Your task to perform on an android device: turn off airplane mode Image 0: 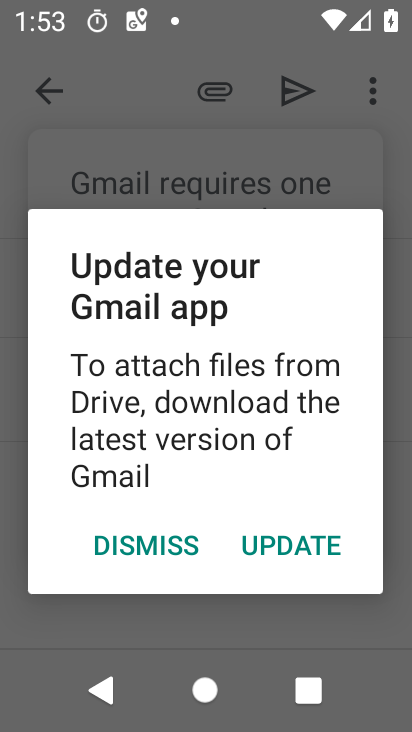
Step 0: click (274, 503)
Your task to perform on an android device: turn off airplane mode Image 1: 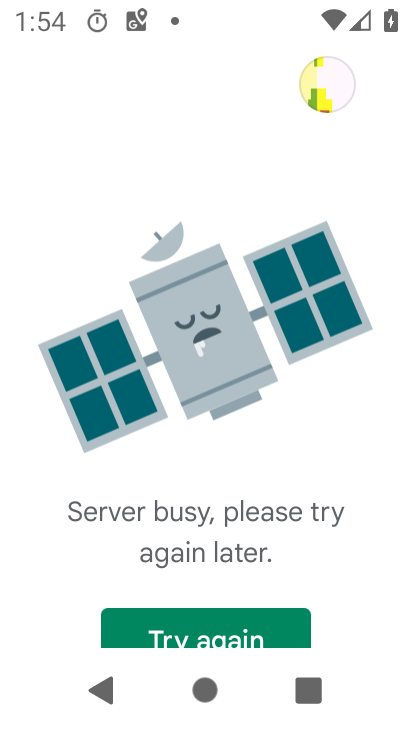
Step 1: press home button
Your task to perform on an android device: turn off airplane mode Image 2: 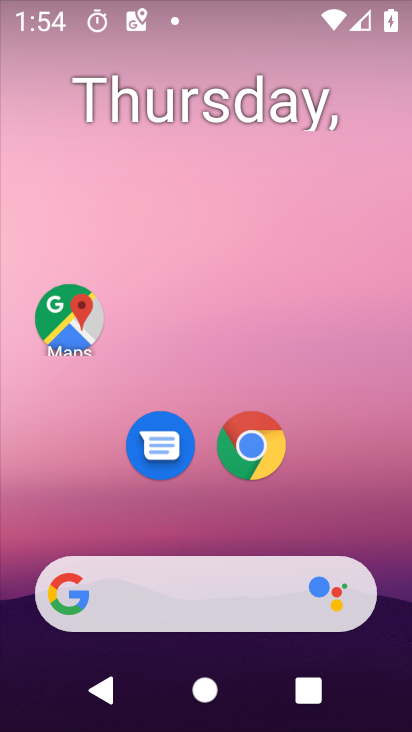
Step 2: drag from (194, 607) to (149, 30)
Your task to perform on an android device: turn off airplane mode Image 3: 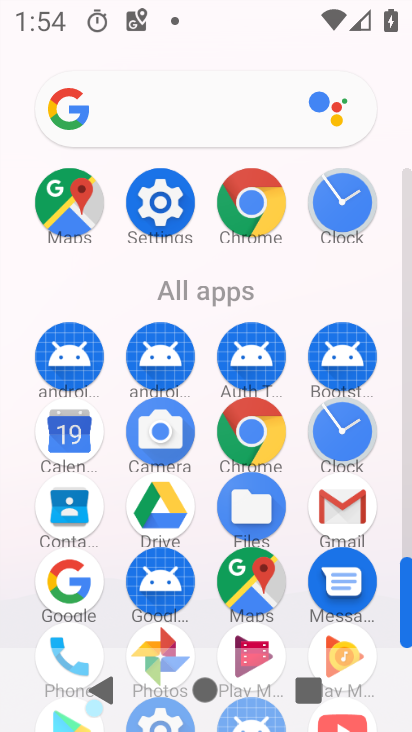
Step 3: click (173, 201)
Your task to perform on an android device: turn off airplane mode Image 4: 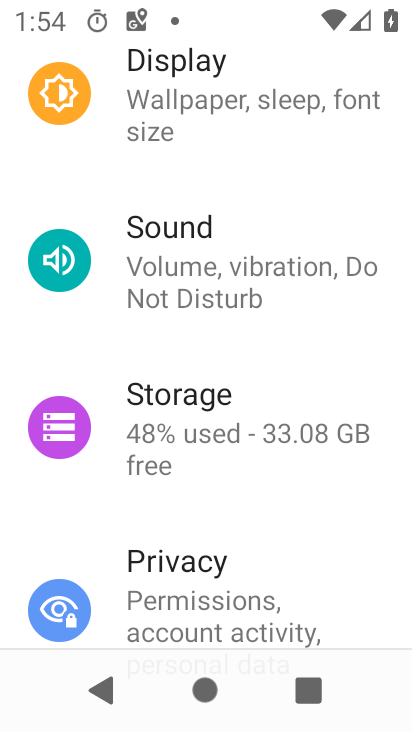
Step 4: drag from (176, 161) to (195, 652)
Your task to perform on an android device: turn off airplane mode Image 5: 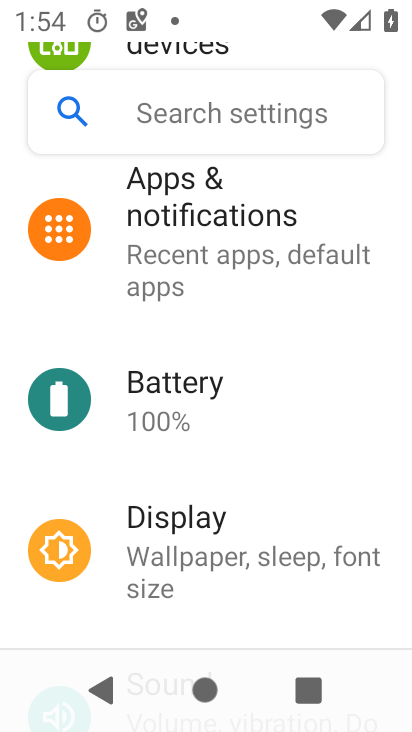
Step 5: drag from (189, 194) to (224, 489)
Your task to perform on an android device: turn off airplane mode Image 6: 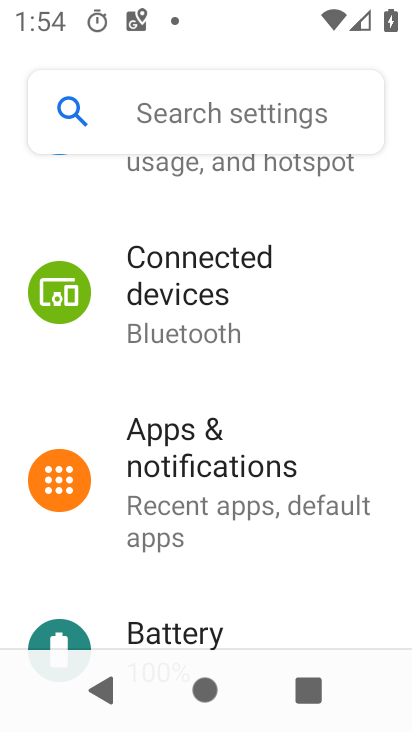
Step 6: drag from (200, 277) to (212, 543)
Your task to perform on an android device: turn off airplane mode Image 7: 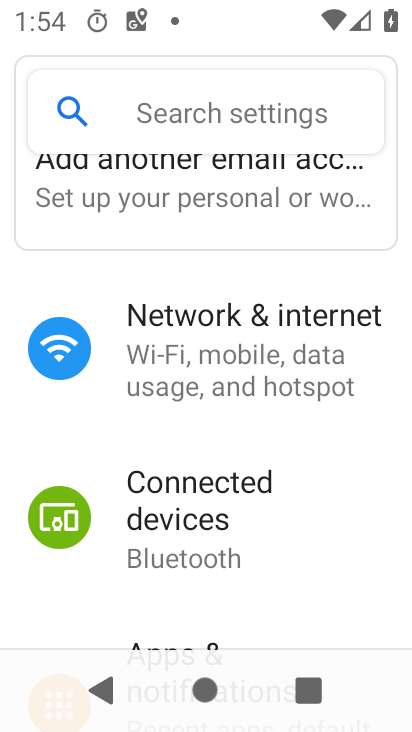
Step 7: click (218, 329)
Your task to perform on an android device: turn off airplane mode Image 8: 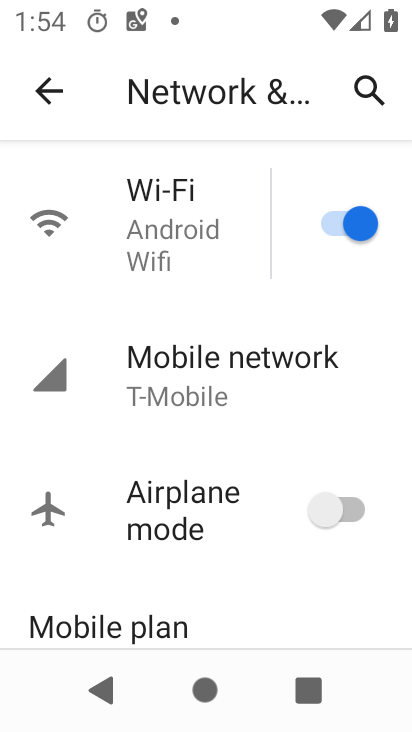
Step 8: task complete